Your task to perform on an android device: check out phone information Image 0: 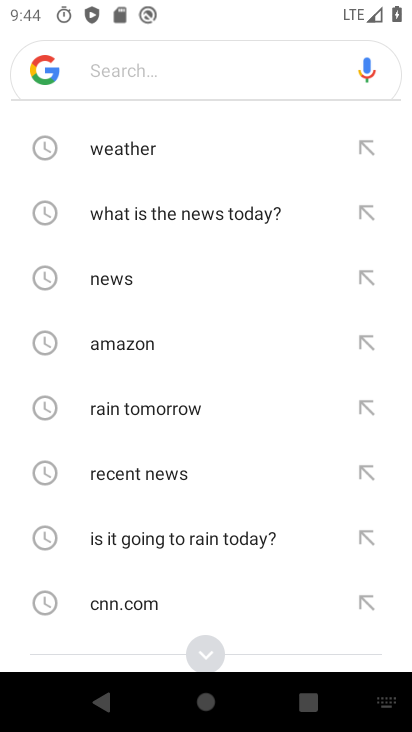
Step 0: press back button
Your task to perform on an android device: check out phone information Image 1: 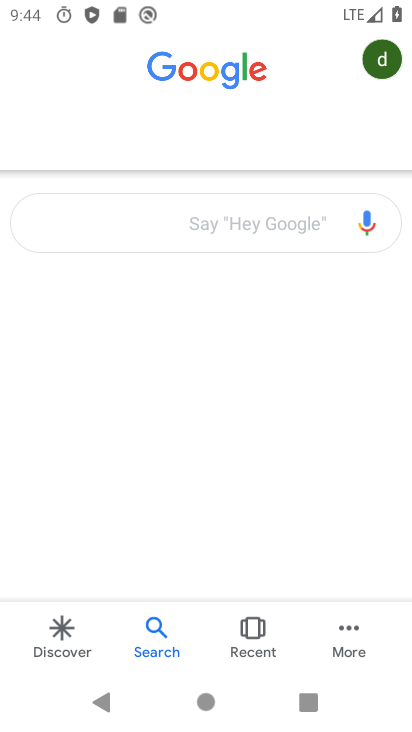
Step 1: press back button
Your task to perform on an android device: check out phone information Image 2: 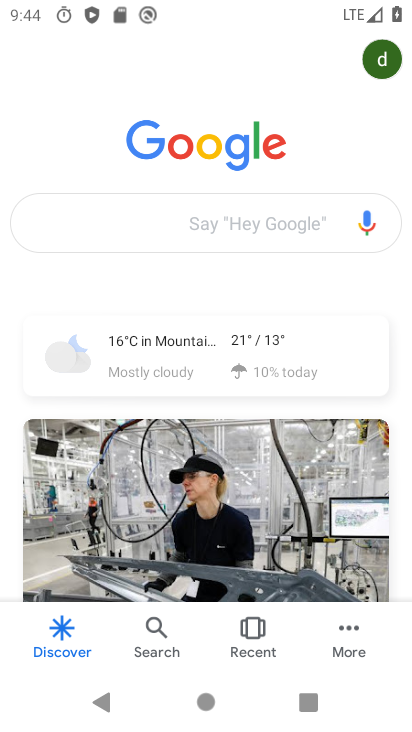
Step 2: press back button
Your task to perform on an android device: check out phone information Image 3: 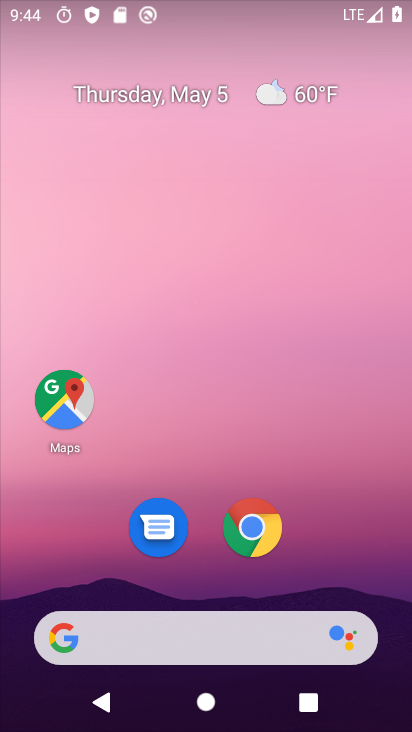
Step 3: drag from (299, 589) to (352, 147)
Your task to perform on an android device: check out phone information Image 4: 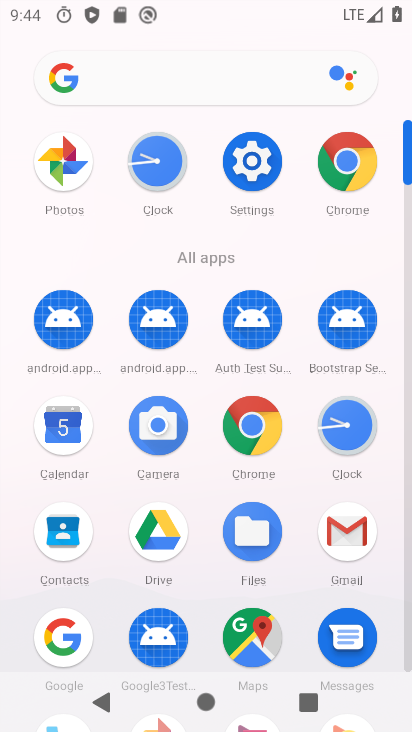
Step 4: click (245, 163)
Your task to perform on an android device: check out phone information Image 5: 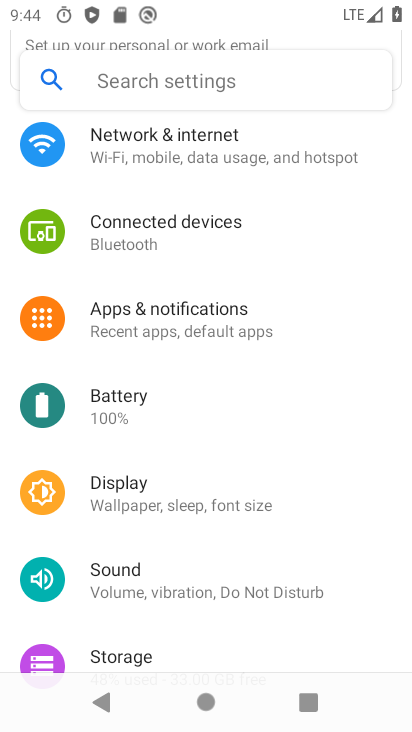
Step 5: drag from (162, 597) to (256, 99)
Your task to perform on an android device: check out phone information Image 6: 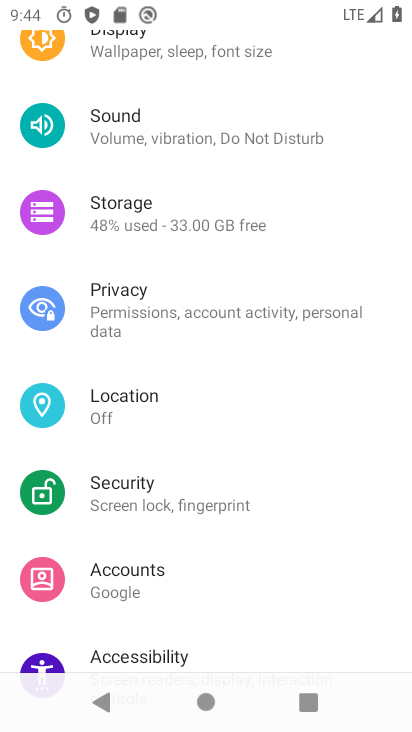
Step 6: drag from (191, 590) to (242, 139)
Your task to perform on an android device: check out phone information Image 7: 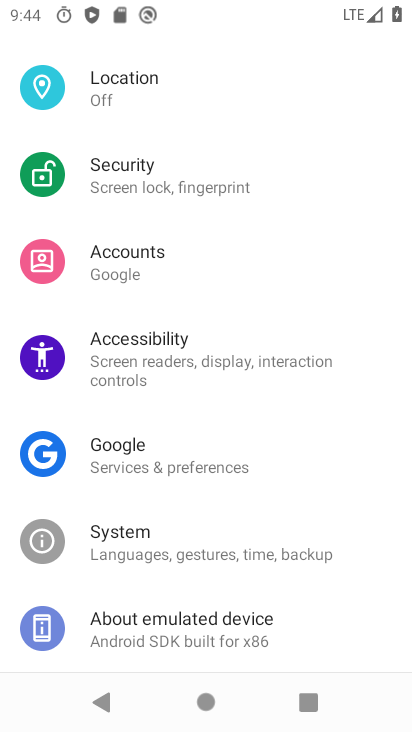
Step 7: click (183, 629)
Your task to perform on an android device: check out phone information Image 8: 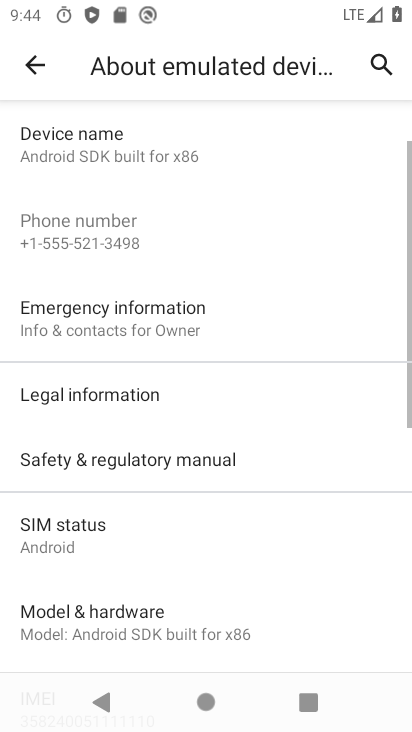
Step 8: drag from (185, 596) to (248, 155)
Your task to perform on an android device: check out phone information Image 9: 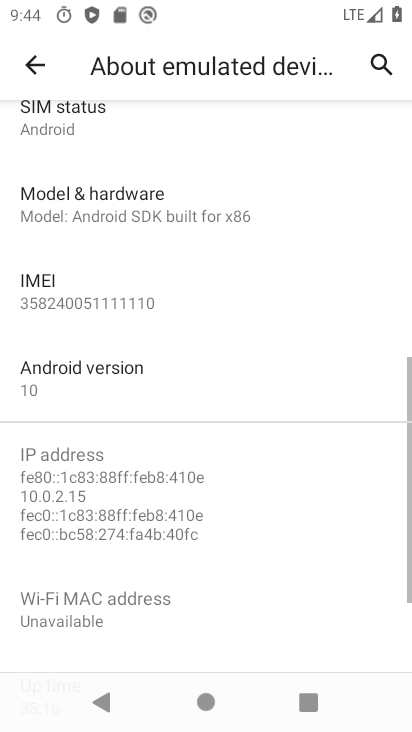
Step 9: click (210, 215)
Your task to perform on an android device: check out phone information Image 10: 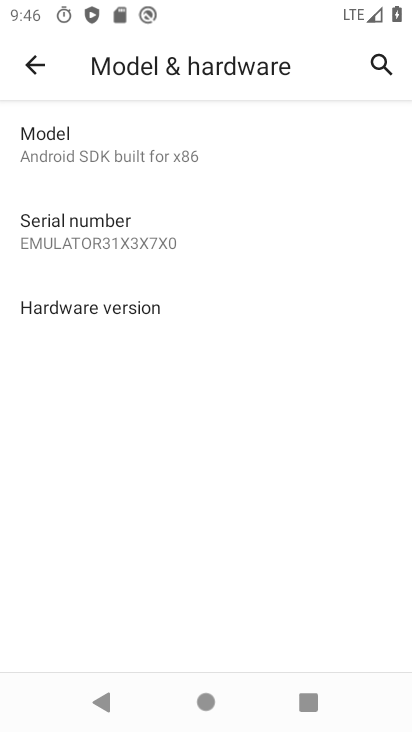
Step 10: task complete